Your task to perform on an android device: Open Google Chrome Image 0: 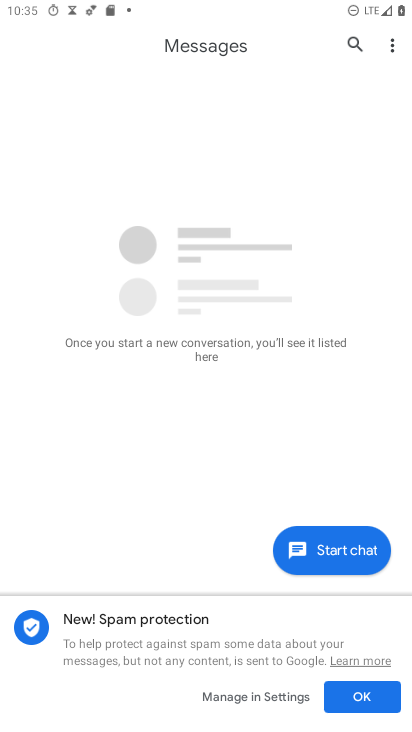
Step 0: press home button
Your task to perform on an android device: Open Google Chrome Image 1: 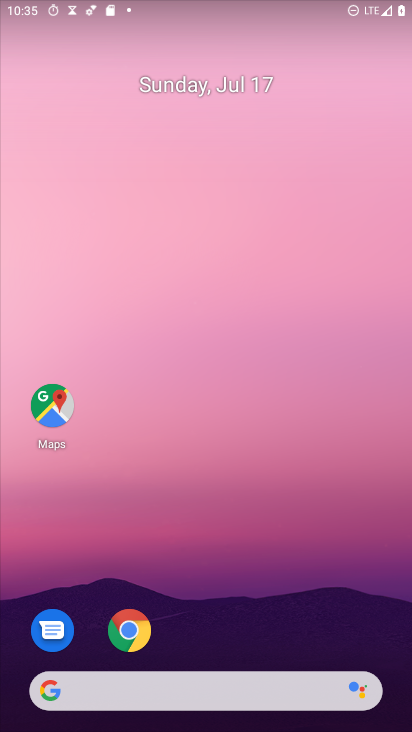
Step 1: drag from (205, 694) to (160, 42)
Your task to perform on an android device: Open Google Chrome Image 2: 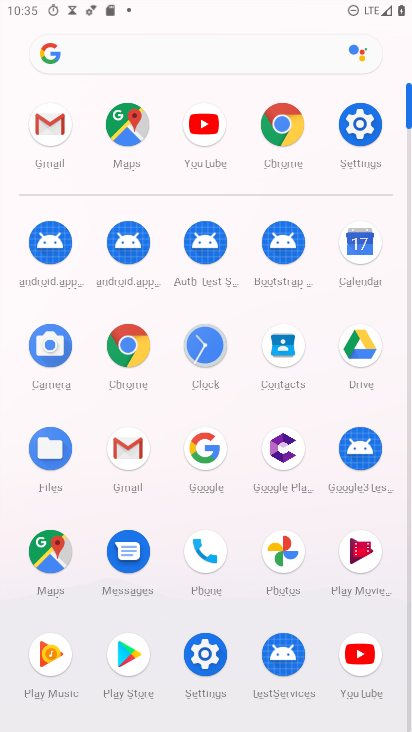
Step 2: click (133, 345)
Your task to perform on an android device: Open Google Chrome Image 3: 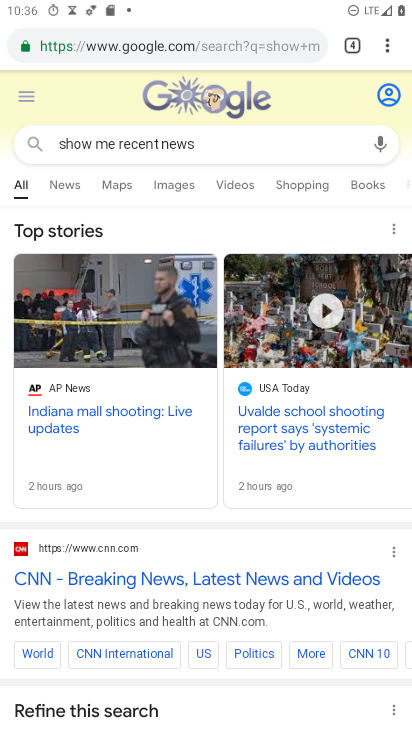
Step 3: task complete